Your task to perform on an android device: Go to internet settings Image 0: 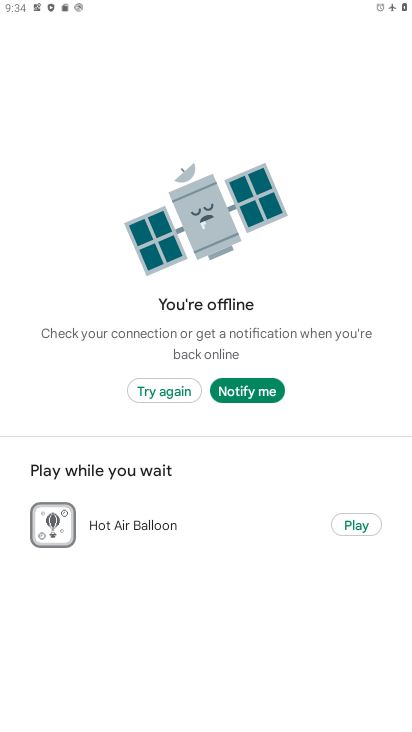
Step 0: press home button
Your task to perform on an android device: Go to internet settings Image 1: 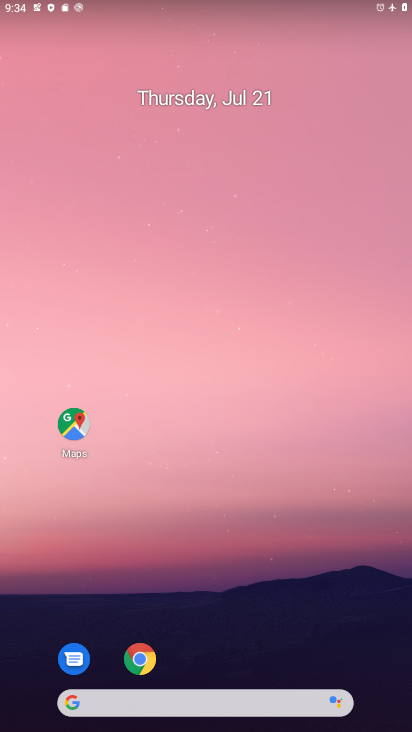
Step 1: drag from (221, 653) to (102, 26)
Your task to perform on an android device: Go to internet settings Image 2: 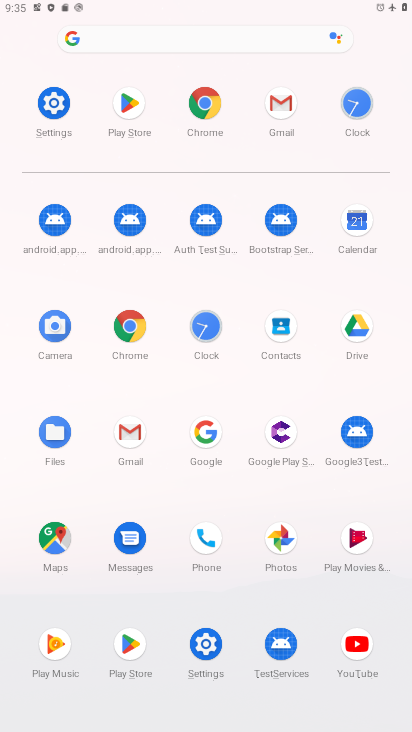
Step 2: click (50, 110)
Your task to perform on an android device: Go to internet settings Image 3: 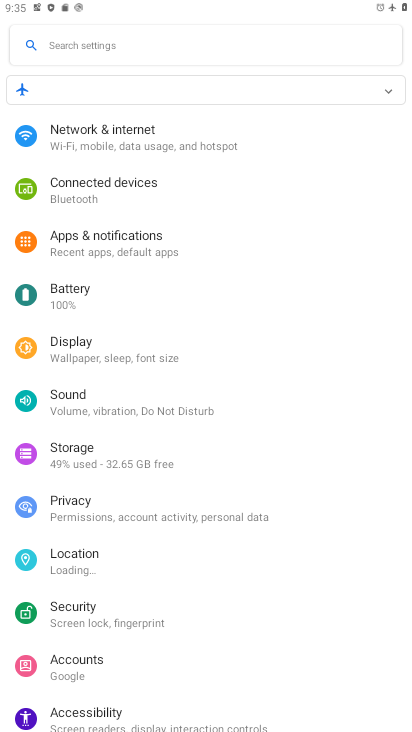
Step 3: click (64, 130)
Your task to perform on an android device: Go to internet settings Image 4: 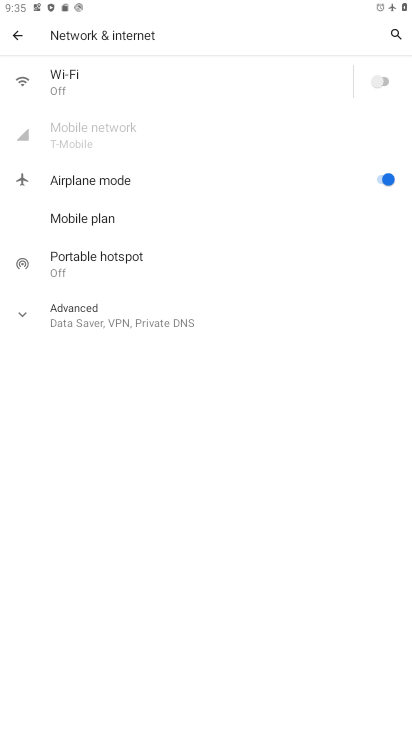
Step 4: task complete